Your task to perform on an android device: turn on airplane mode Image 0: 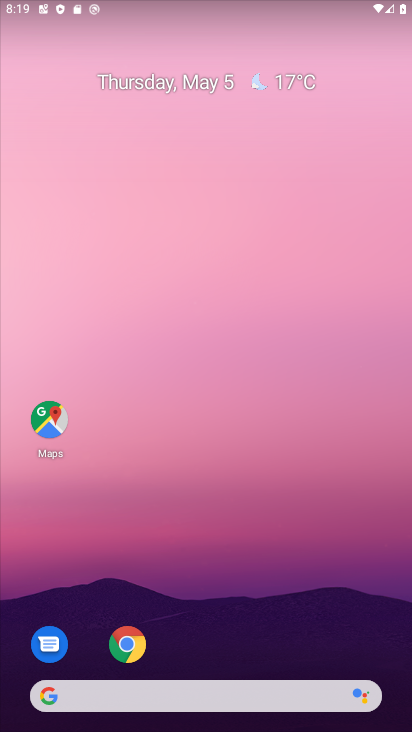
Step 0: drag from (189, 645) to (231, 149)
Your task to perform on an android device: turn on airplane mode Image 1: 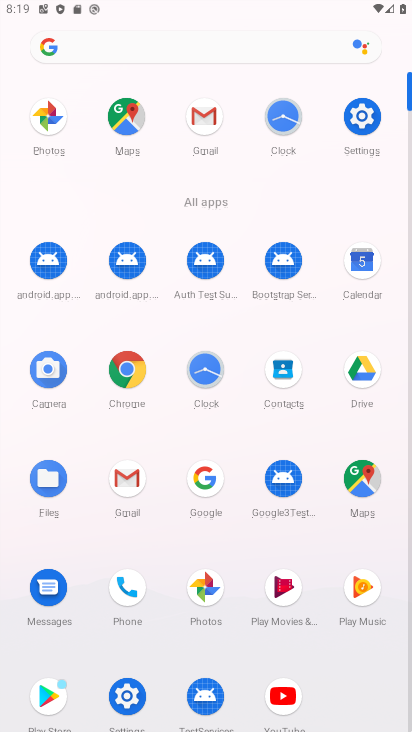
Step 1: drag from (183, 635) to (218, 284)
Your task to perform on an android device: turn on airplane mode Image 2: 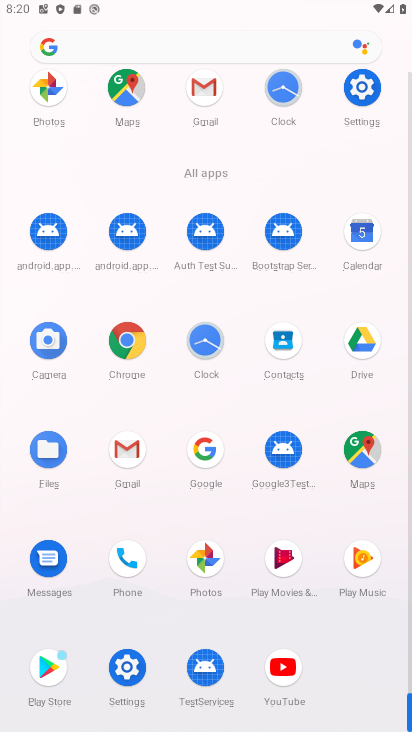
Step 2: click (129, 667)
Your task to perform on an android device: turn on airplane mode Image 3: 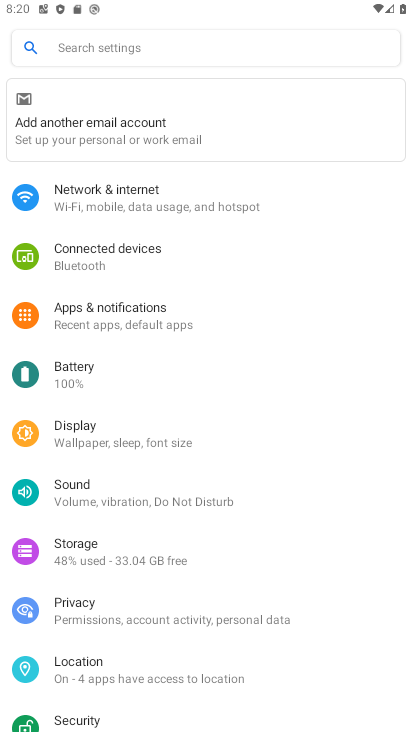
Step 3: click (160, 188)
Your task to perform on an android device: turn on airplane mode Image 4: 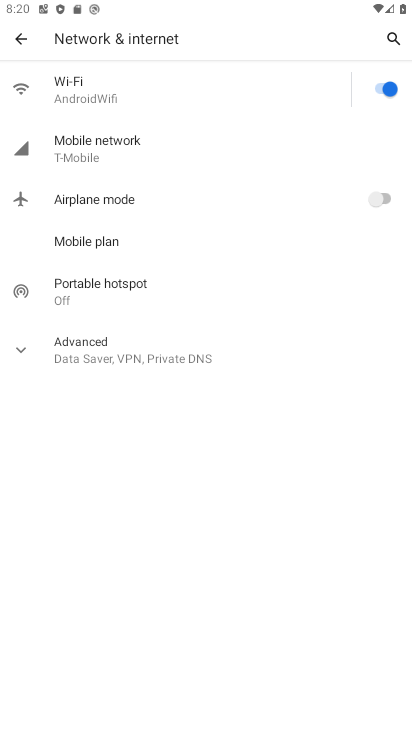
Step 4: click (106, 206)
Your task to perform on an android device: turn on airplane mode Image 5: 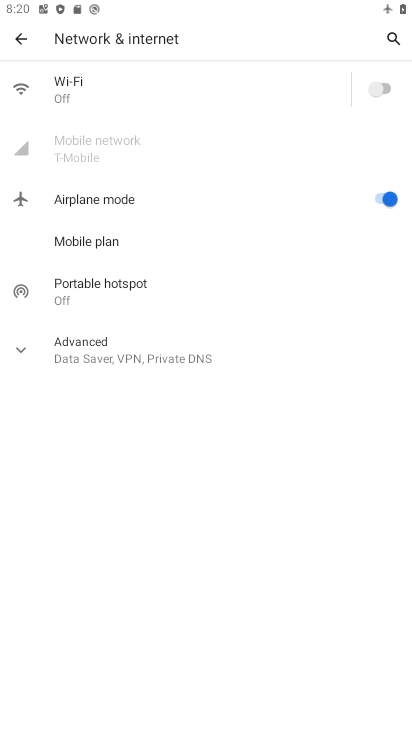
Step 5: task complete